Your task to perform on an android device: turn on wifi Image 0: 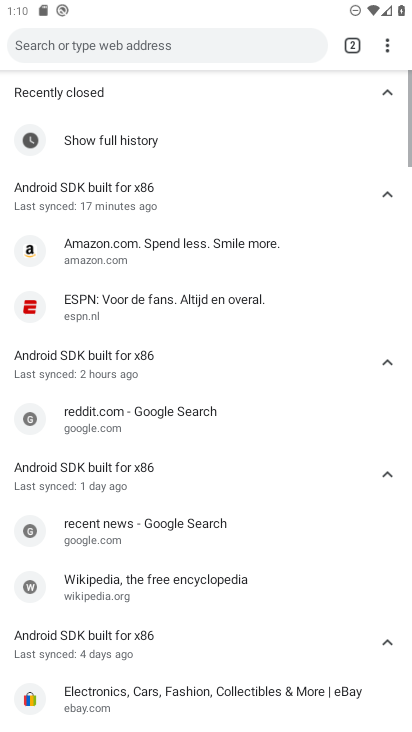
Step 0: press home button
Your task to perform on an android device: turn on wifi Image 1: 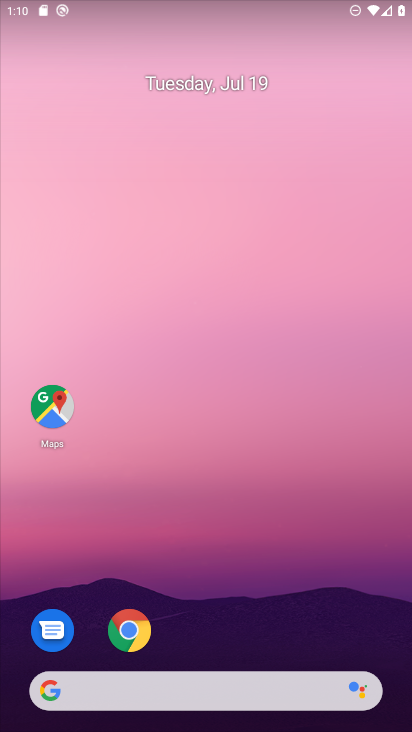
Step 1: drag from (208, 695) to (315, 107)
Your task to perform on an android device: turn on wifi Image 2: 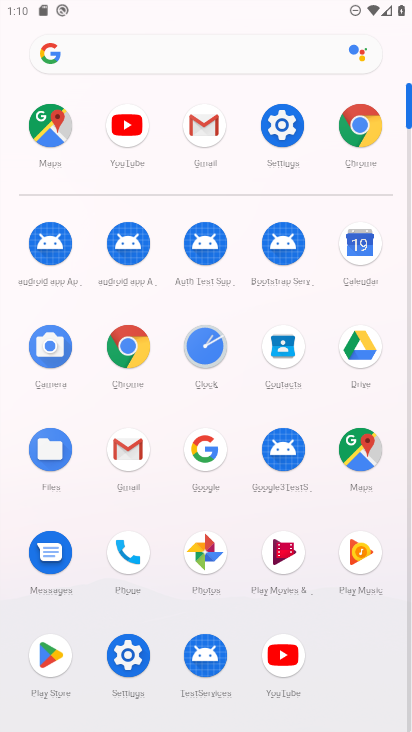
Step 2: click (284, 125)
Your task to perform on an android device: turn on wifi Image 3: 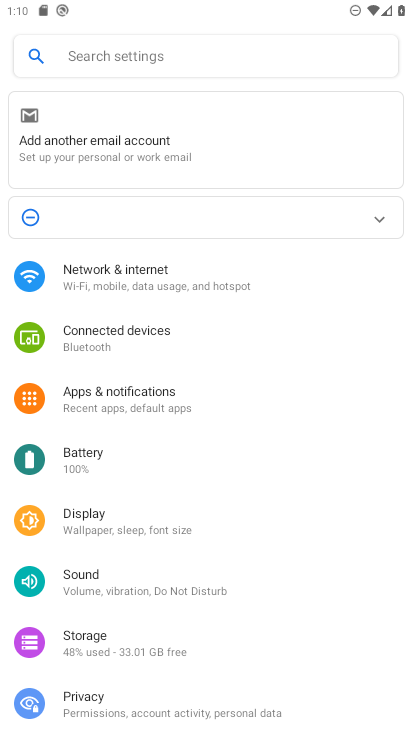
Step 3: click (166, 268)
Your task to perform on an android device: turn on wifi Image 4: 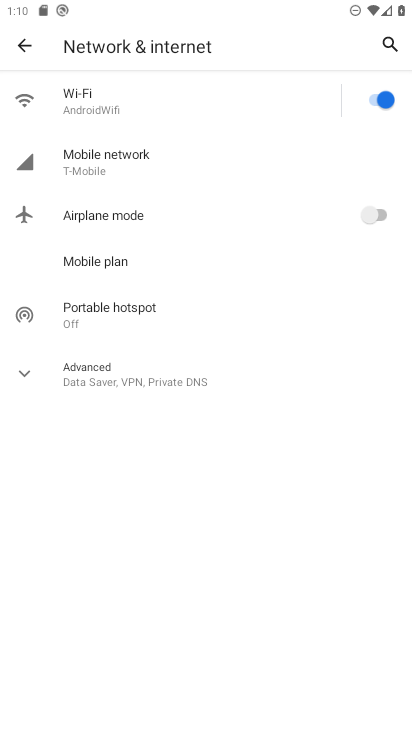
Step 4: task complete